Your task to perform on an android device: What is the news today? Image 0: 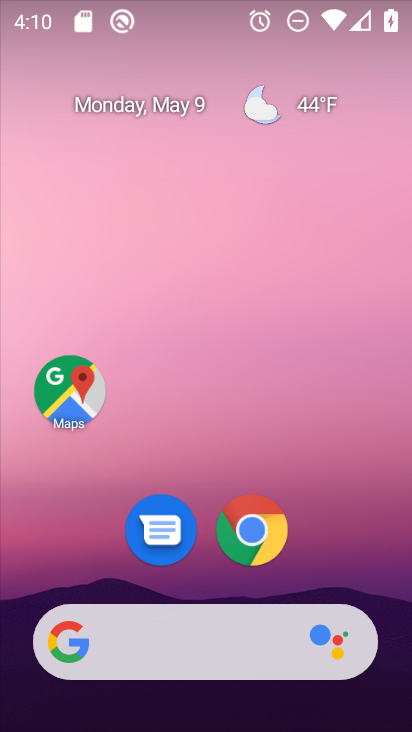
Step 0: drag from (12, 285) to (398, 290)
Your task to perform on an android device: What is the news today? Image 1: 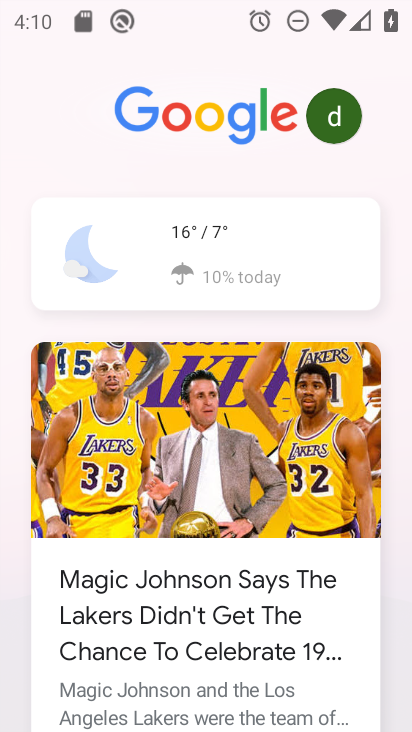
Step 1: task complete